Your task to perform on an android device: set default search engine in the chrome app Image 0: 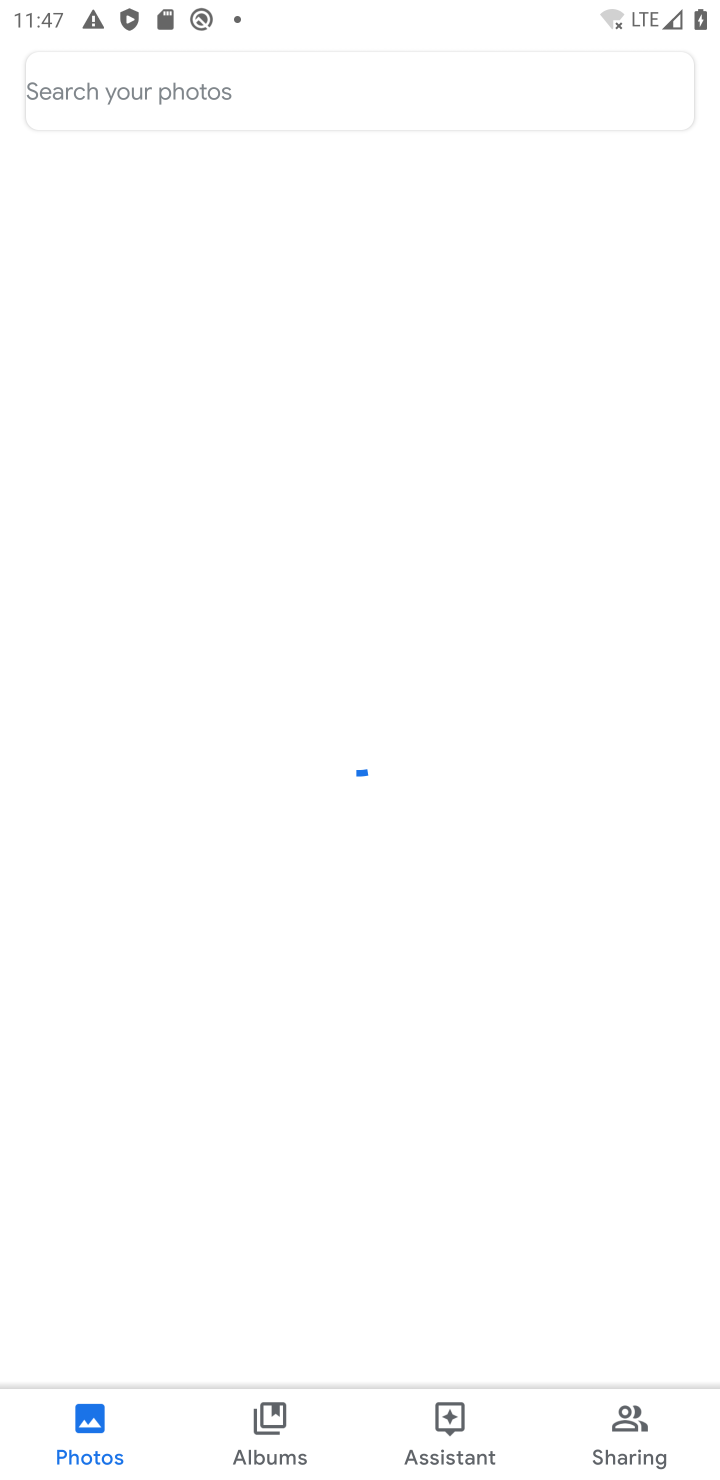
Step 0: press home button
Your task to perform on an android device: set default search engine in the chrome app Image 1: 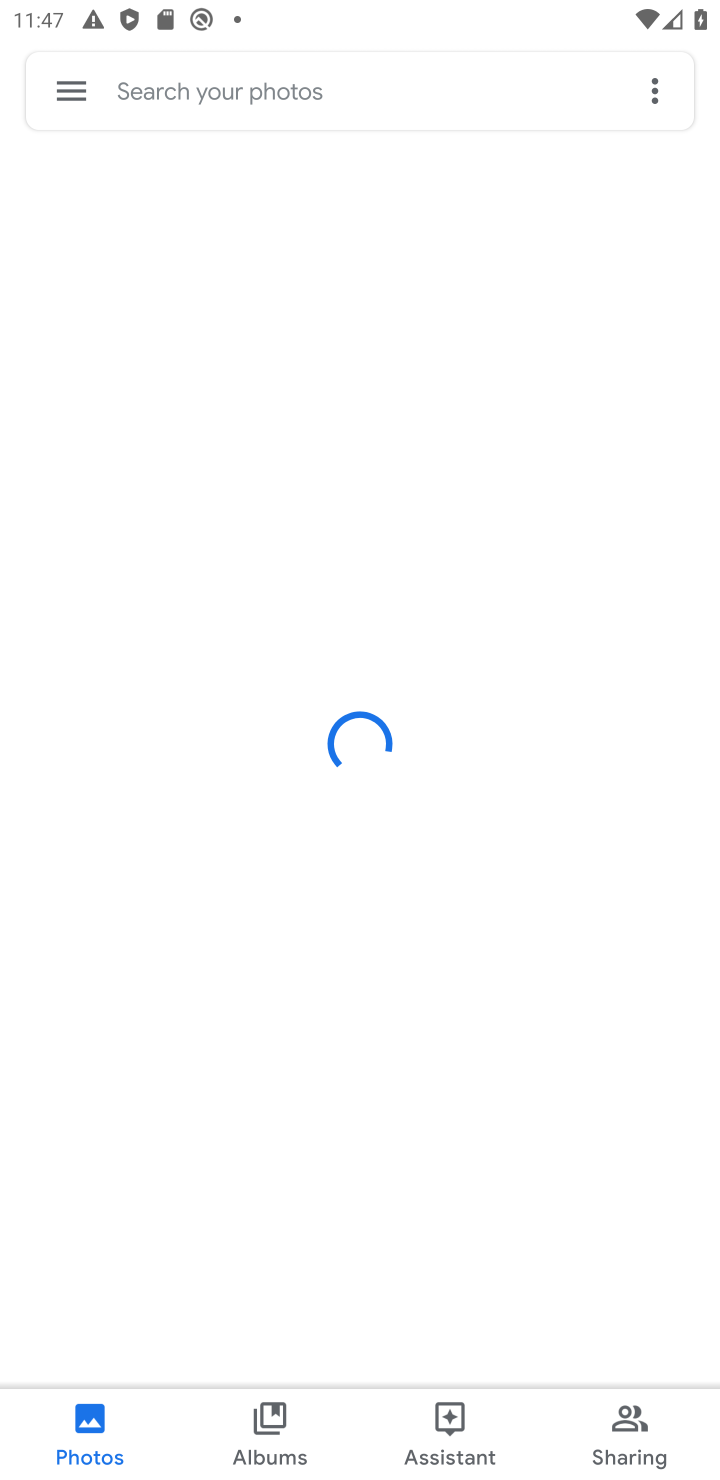
Step 1: press home button
Your task to perform on an android device: set default search engine in the chrome app Image 2: 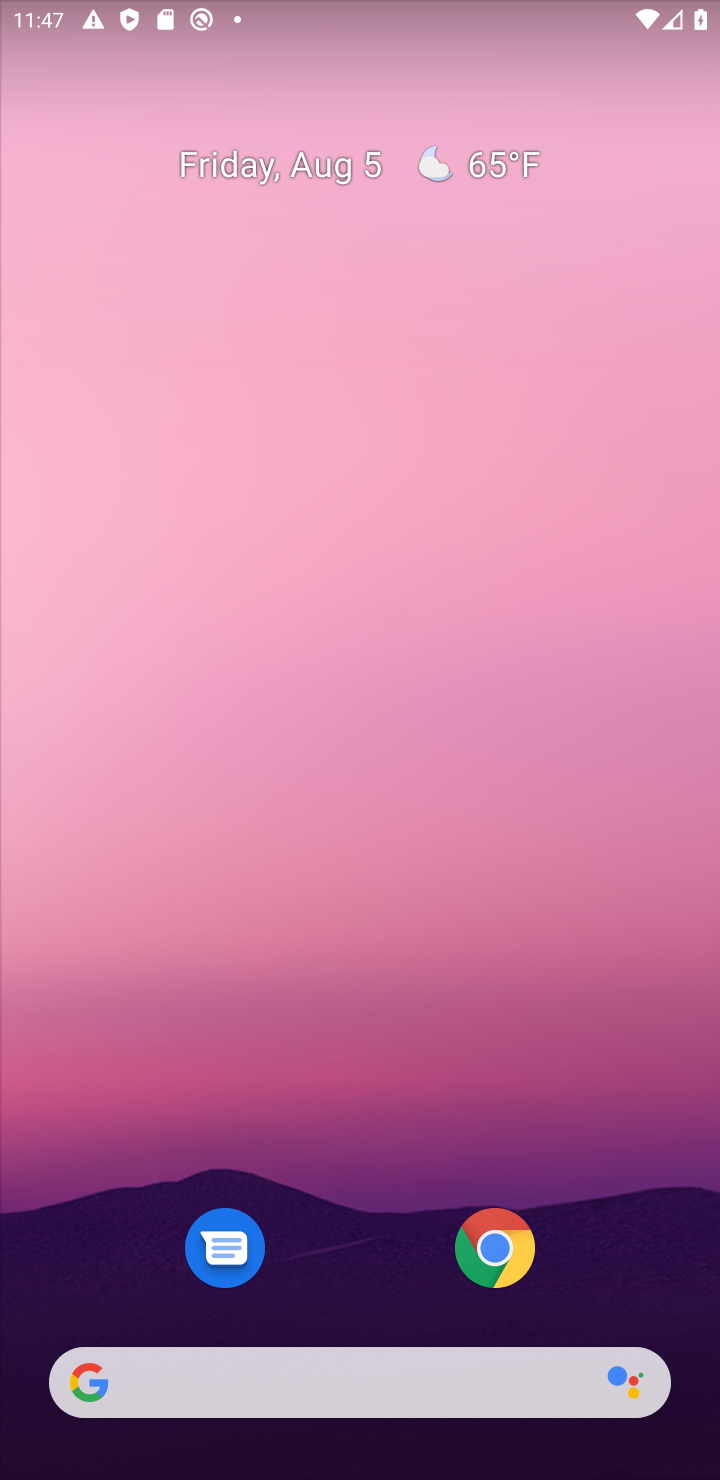
Step 2: press home button
Your task to perform on an android device: set default search engine in the chrome app Image 3: 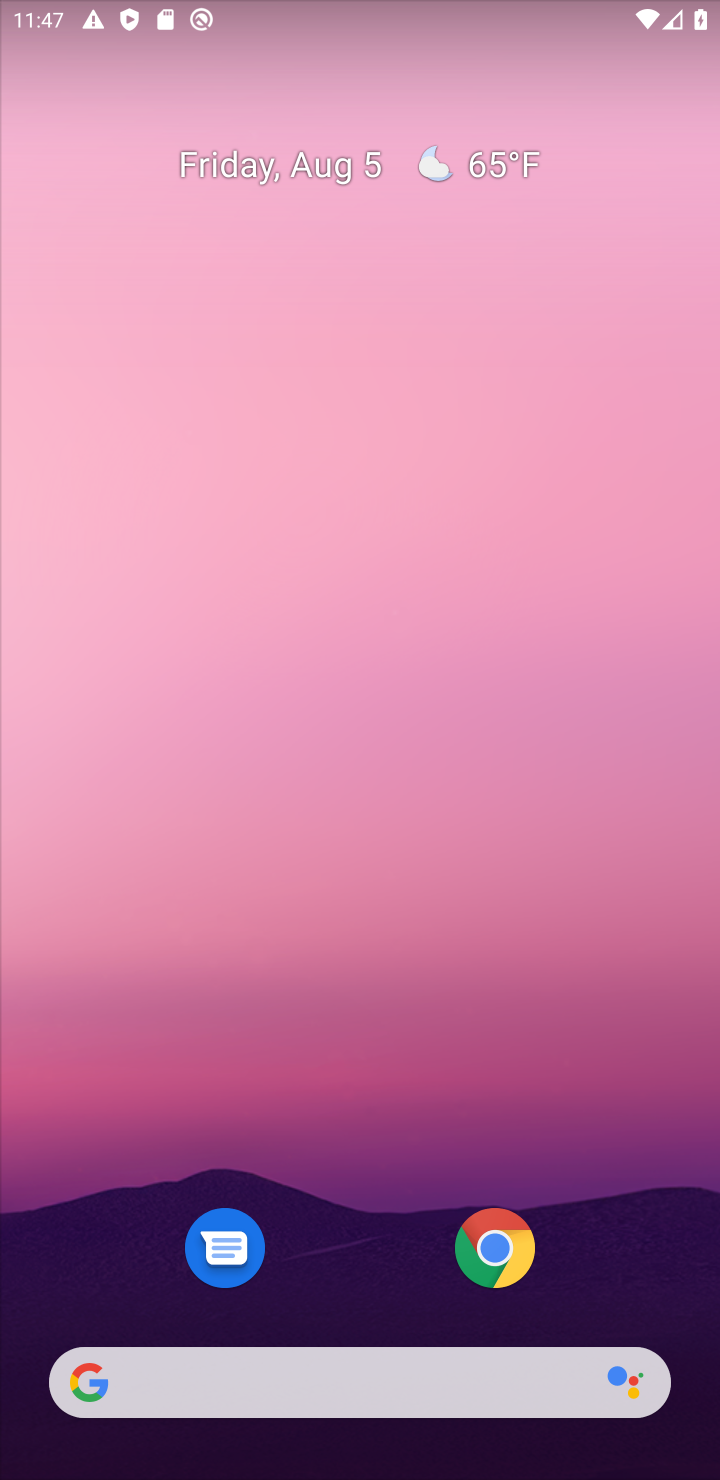
Step 3: drag from (367, 1314) to (403, 118)
Your task to perform on an android device: set default search engine in the chrome app Image 4: 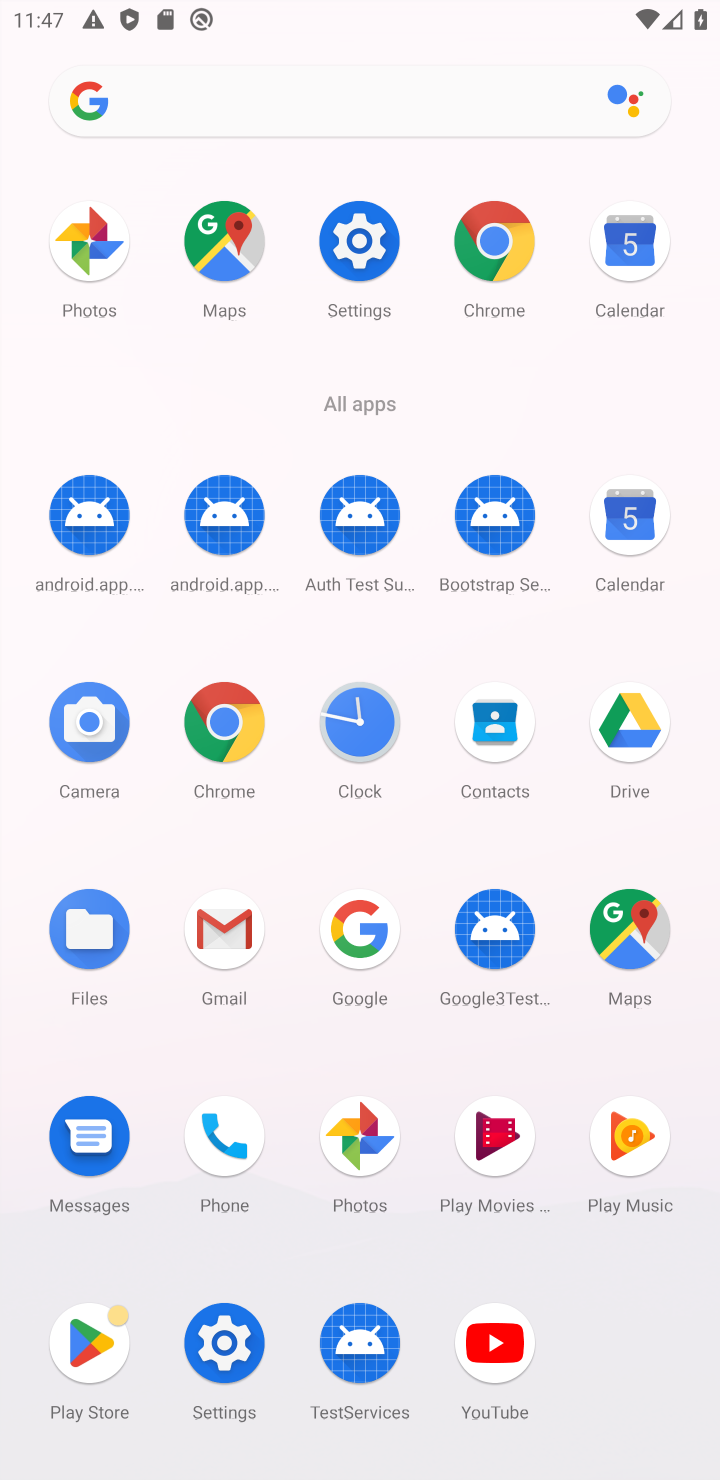
Step 4: click (219, 706)
Your task to perform on an android device: set default search engine in the chrome app Image 5: 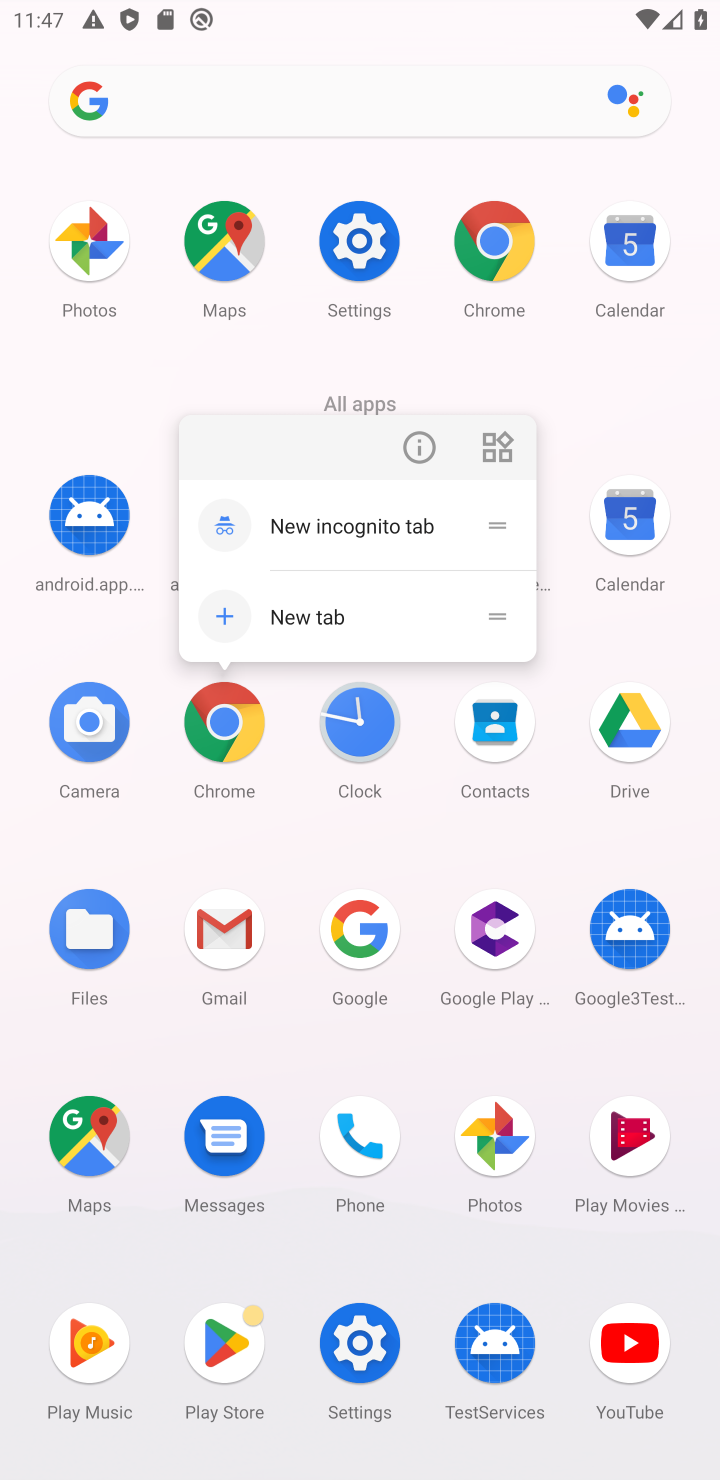
Step 5: click (221, 711)
Your task to perform on an android device: set default search engine in the chrome app Image 6: 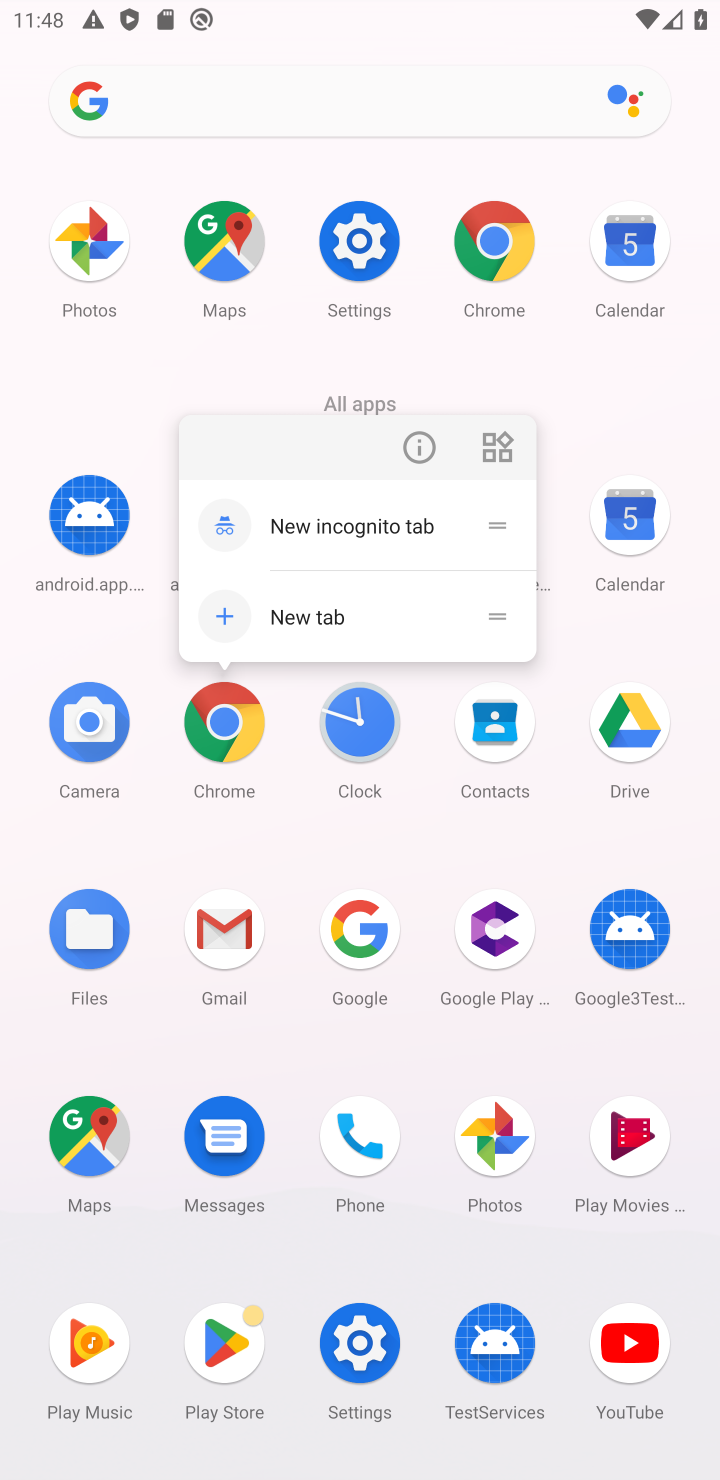
Step 6: click (221, 711)
Your task to perform on an android device: set default search engine in the chrome app Image 7: 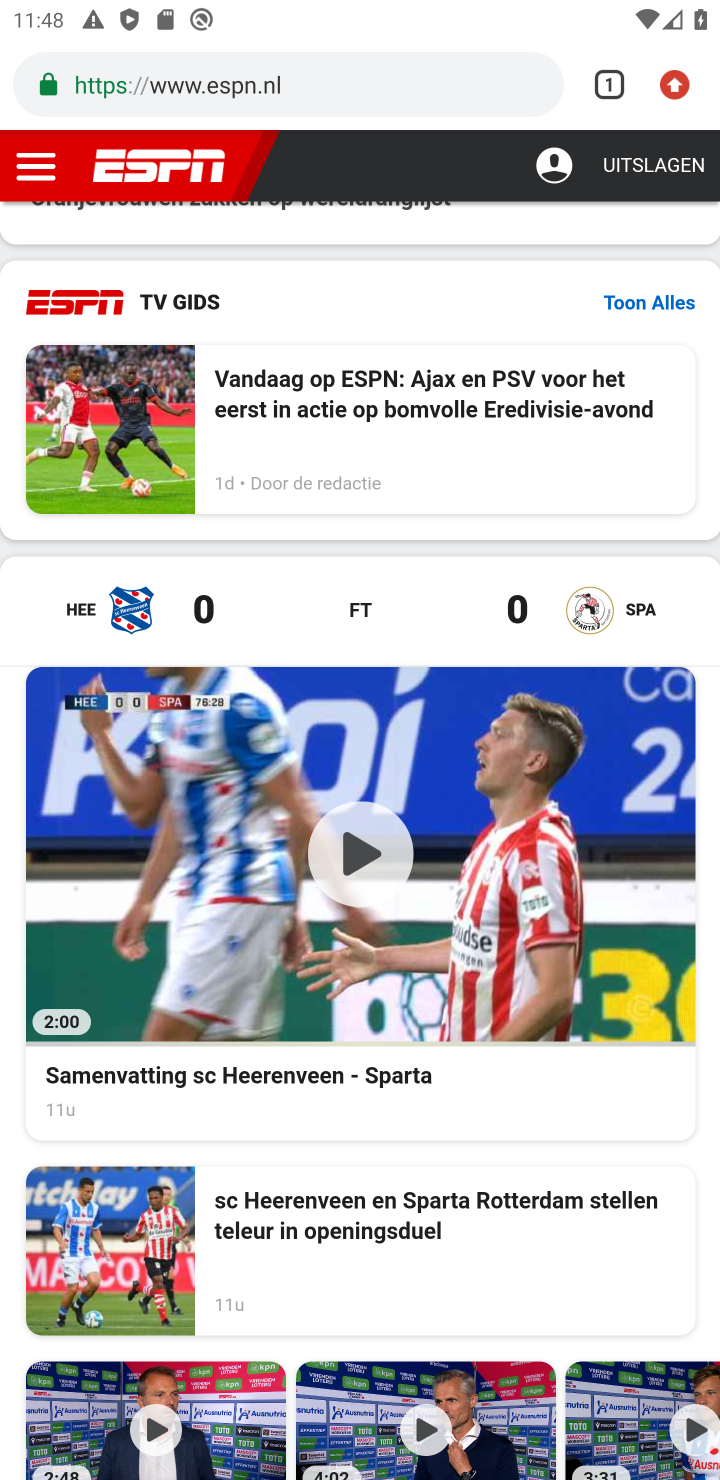
Step 7: click (670, 79)
Your task to perform on an android device: set default search engine in the chrome app Image 8: 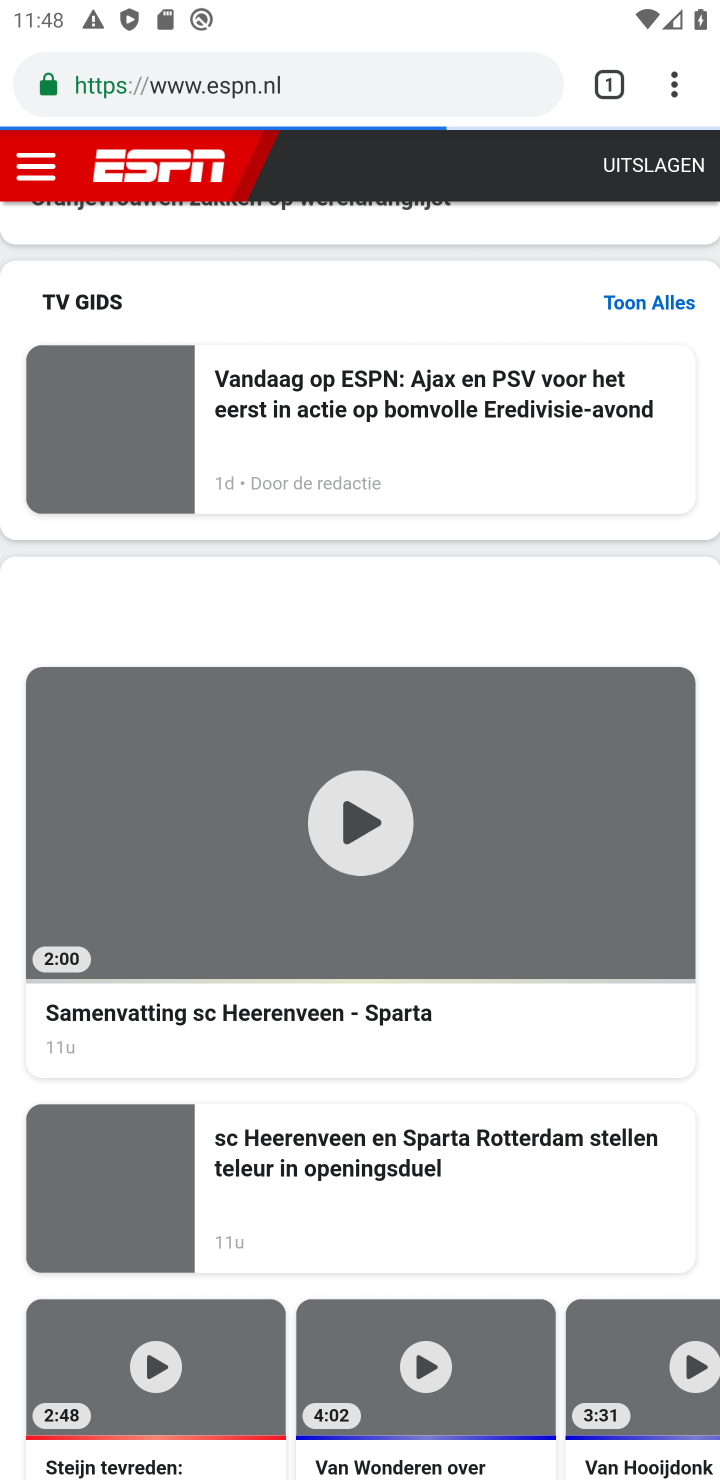
Step 8: click (678, 84)
Your task to perform on an android device: set default search engine in the chrome app Image 9: 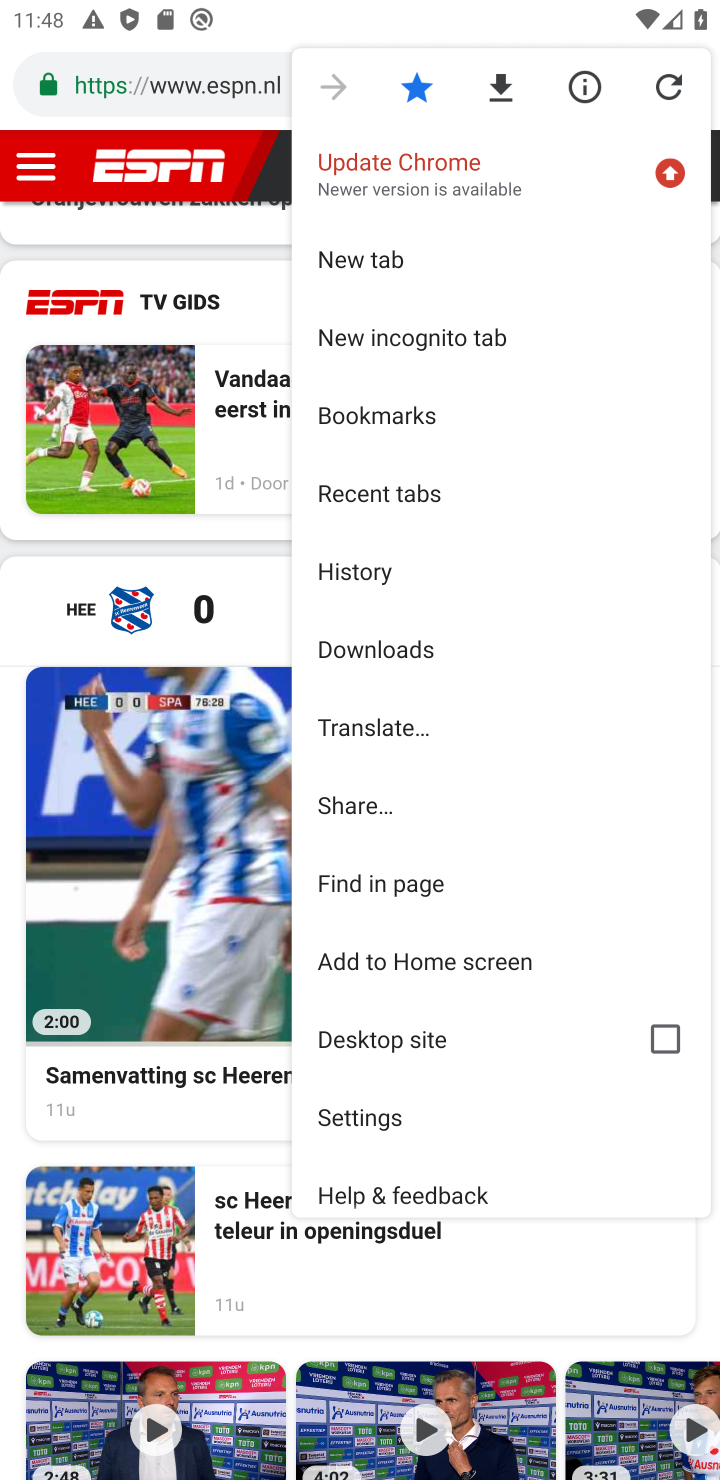
Step 9: click (422, 1114)
Your task to perform on an android device: set default search engine in the chrome app Image 10: 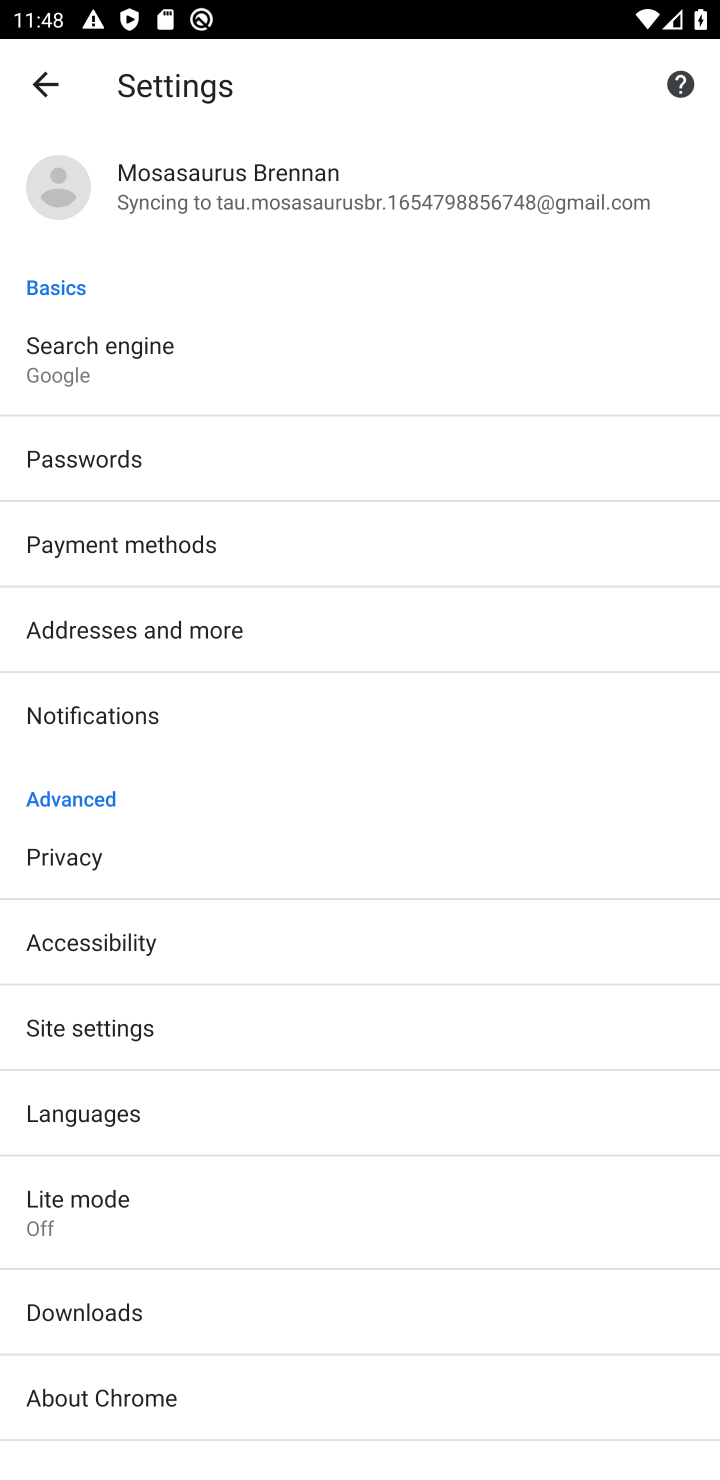
Step 10: click (107, 367)
Your task to perform on an android device: set default search engine in the chrome app Image 11: 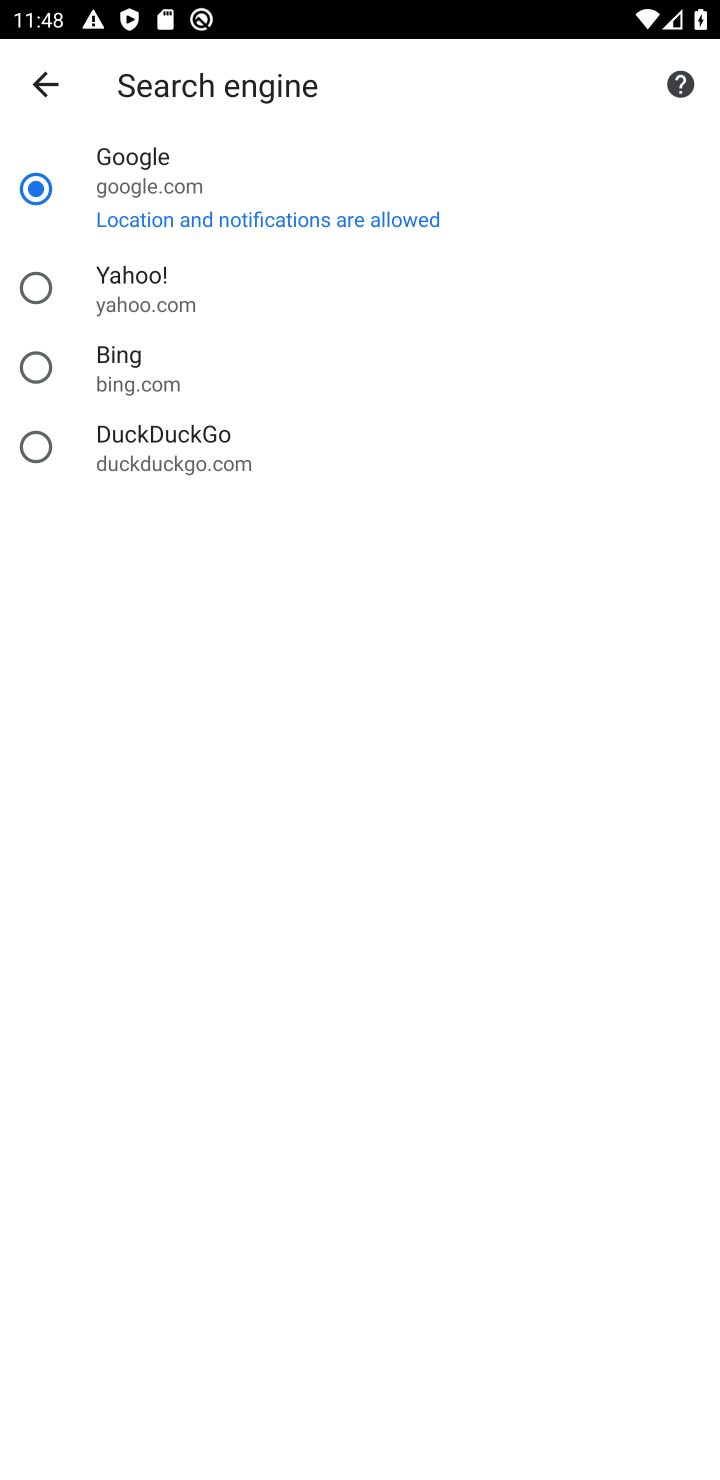
Step 11: click (34, 366)
Your task to perform on an android device: set default search engine in the chrome app Image 12: 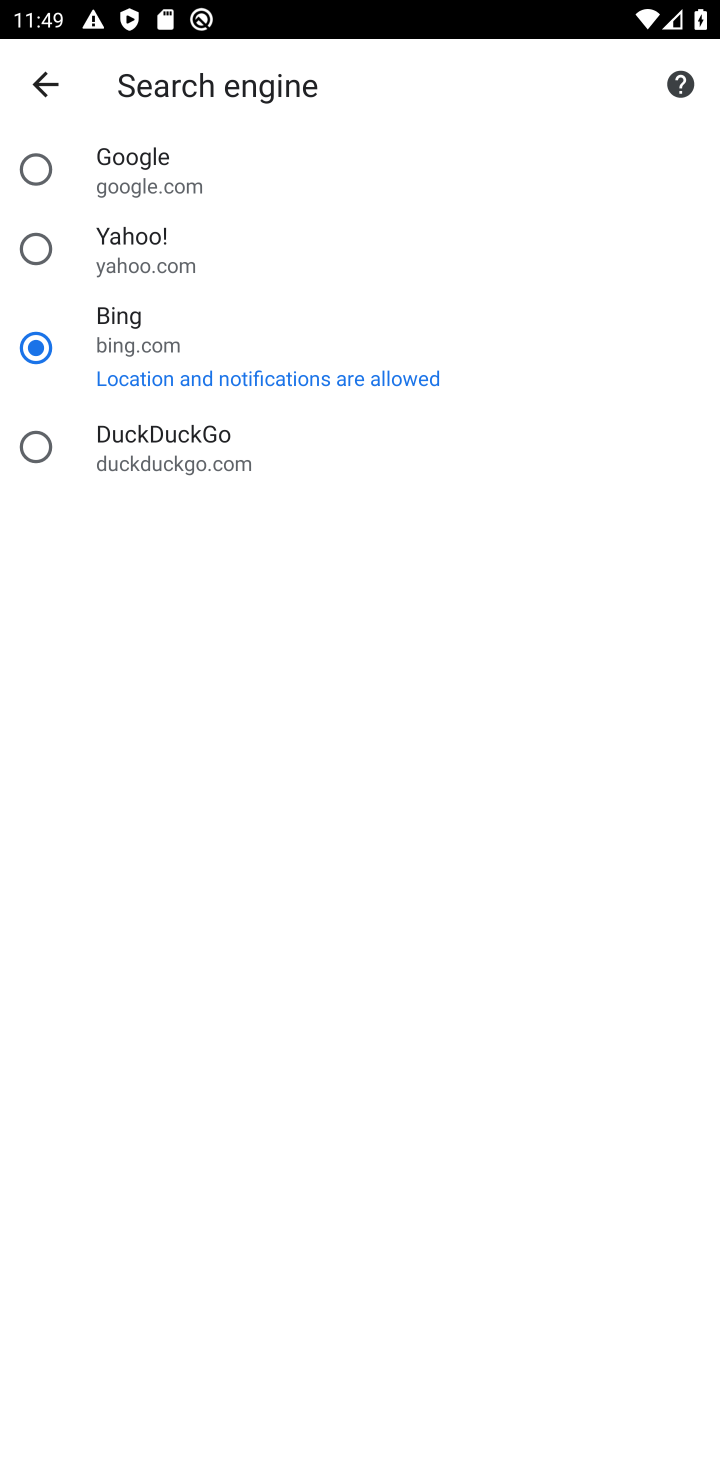
Step 12: task complete